Your task to perform on an android device: check battery use Image 0: 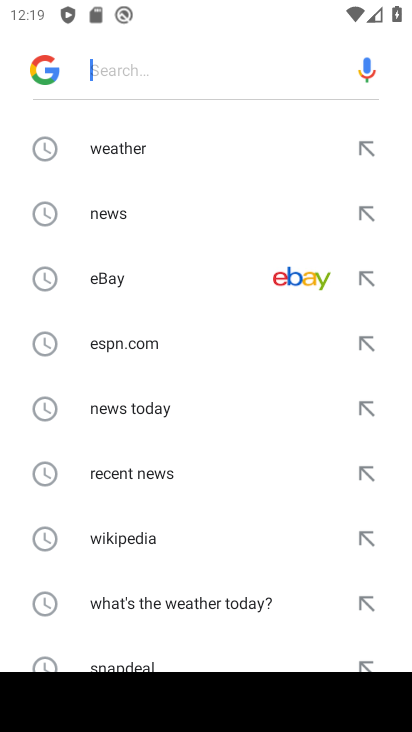
Step 0: press home button
Your task to perform on an android device: check battery use Image 1: 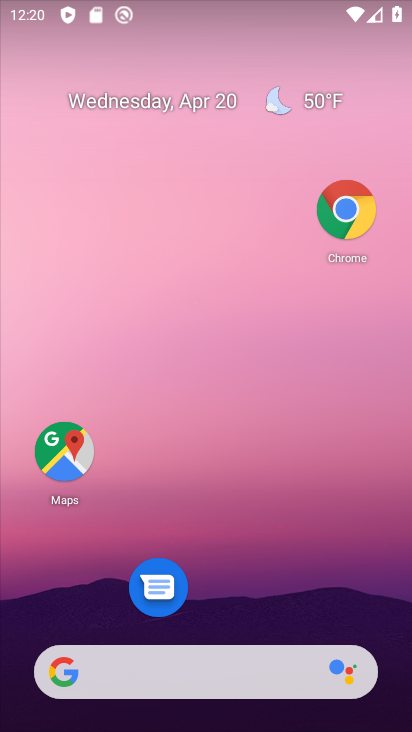
Step 1: drag from (225, 600) to (293, 121)
Your task to perform on an android device: check battery use Image 2: 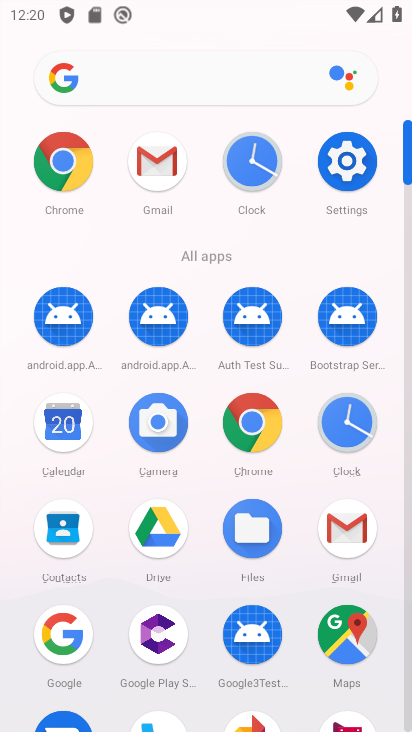
Step 2: click (341, 193)
Your task to perform on an android device: check battery use Image 3: 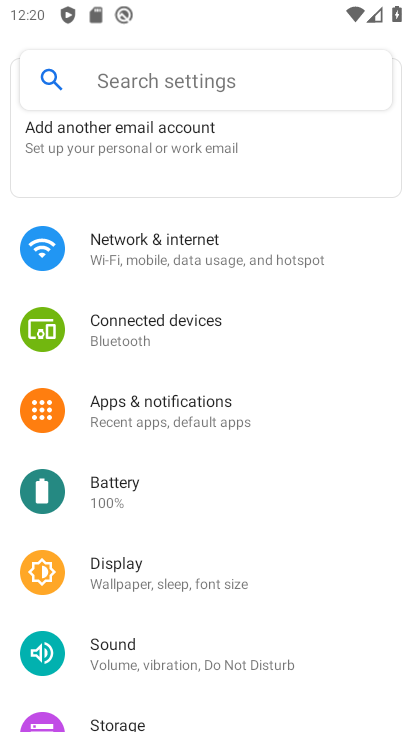
Step 3: click (130, 489)
Your task to perform on an android device: check battery use Image 4: 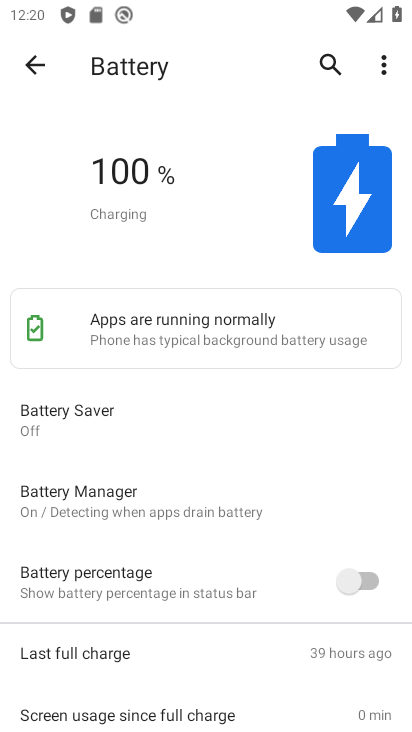
Step 4: click (376, 66)
Your task to perform on an android device: check battery use Image 5: 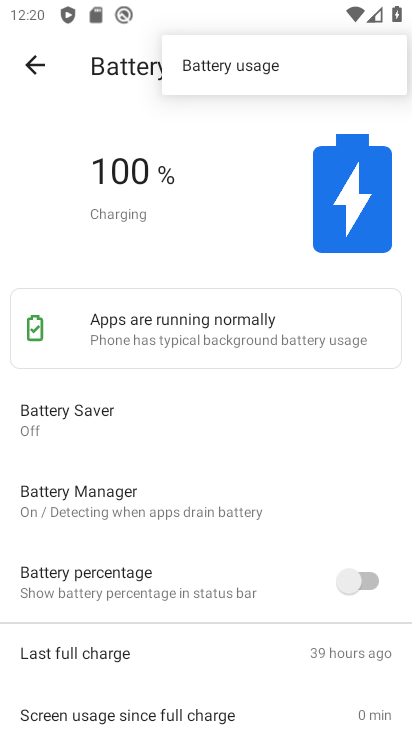
Step 5: click (228, 58)
Your task to perform on an android device: check battery use Image 6: 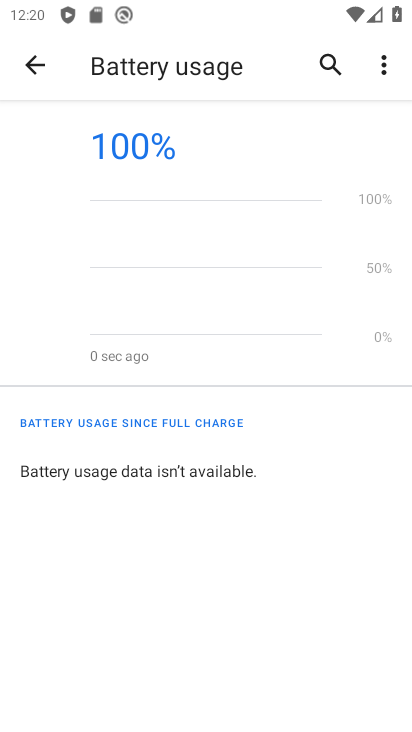
Step 6: task complete